Your task to perform on an android device: Show me recent news Image 0: 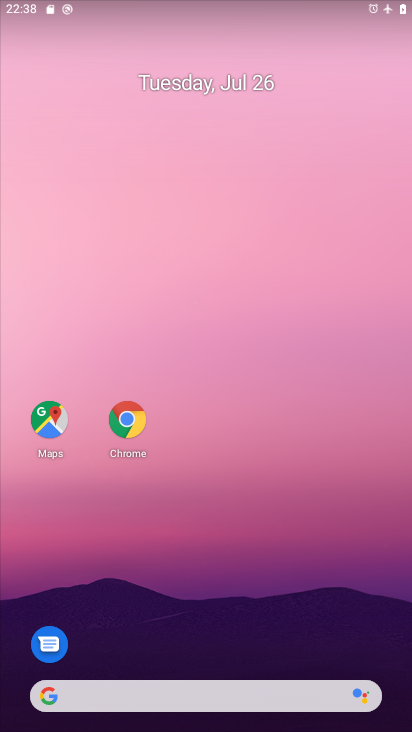
Step 0: drag from (213, 665) to (234, 172)
Your task to perform on an android device: Show me recent news Image 1: 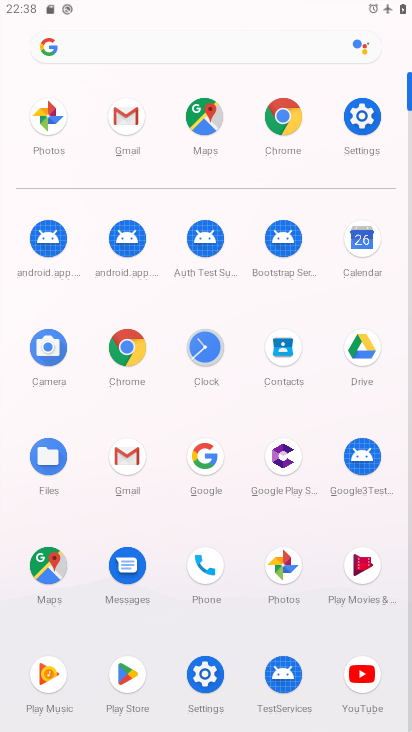
Step 1: click (271, 114)
Your task to perform on an android device: Show me recent news Image 2: 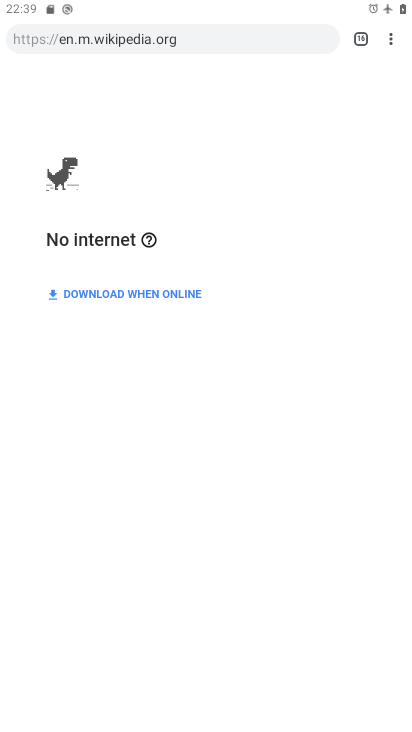
Step 2: click (398, 29)
Your task to perform on an android device: Show me recent news Image 3: 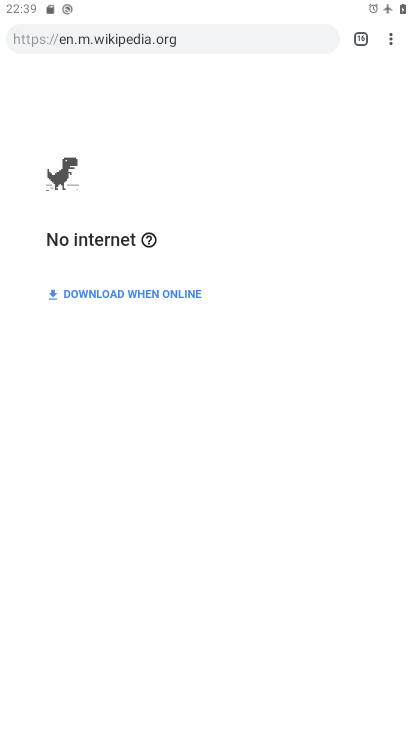
Step 3: click (396, 31)
Your task to perform on an android device: Show me recent news Image 4: 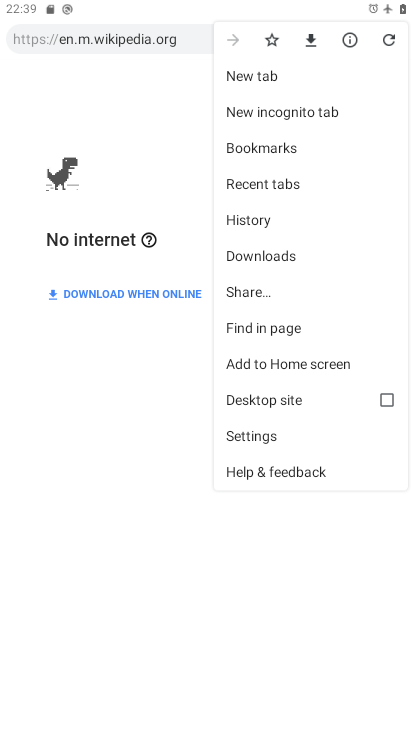
Step 4: click (272, 84)
Your task to perform on an android device: Show me recent news Image 5: 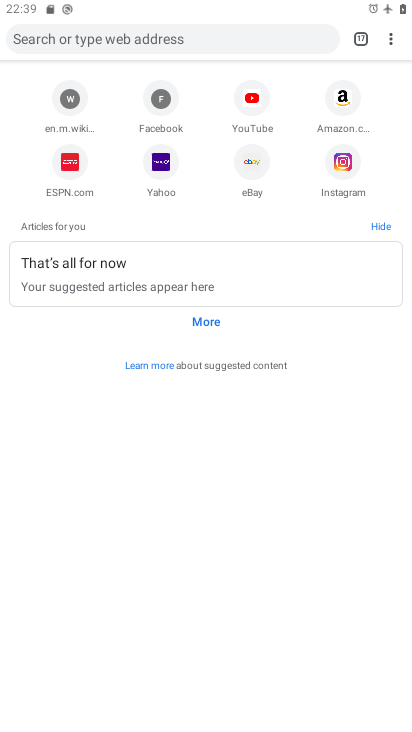
Step 5: click (178, 36)
Your task to perform on an android device: Show me recent news Image 6: 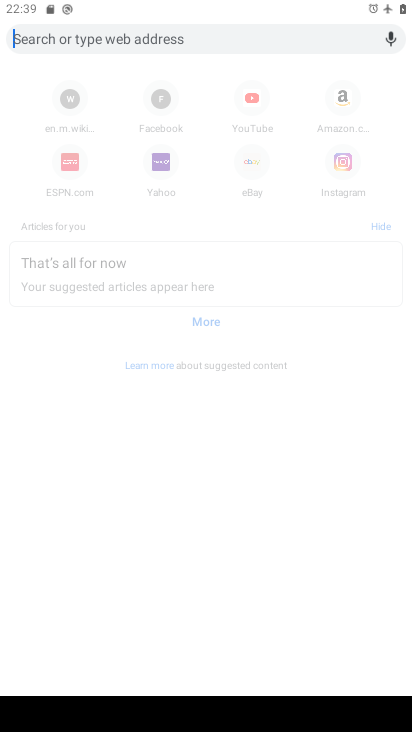
Step 6: type "Show me recent news "
Your task to perform on an android device: Show me recent news Image 7: 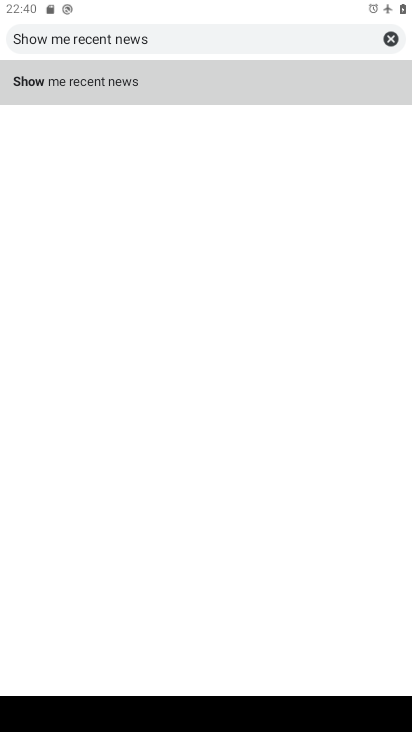
Step 7: click (78, 89)
Your task to perform on an android device: Show me recent news Image 8: 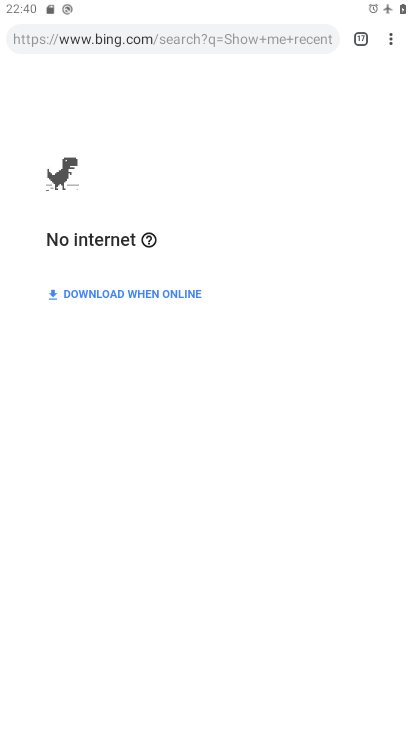
Step 8: task complete